Your task to perform on an android device: Open CNN.com Image 0: 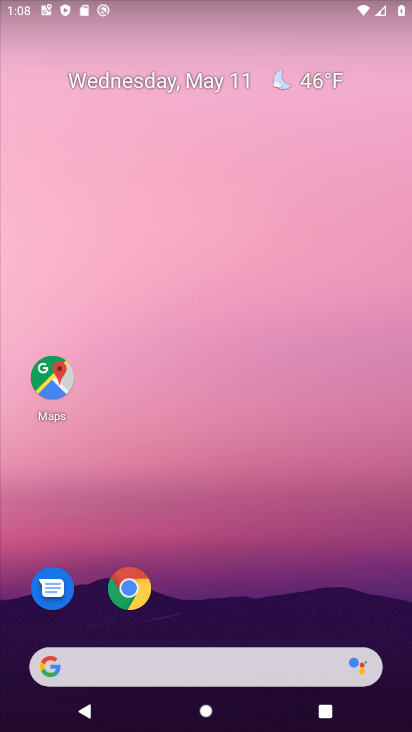
Step 0: click (142, 589)
Your task to perform on an android device: Open CNN.com Image 1: 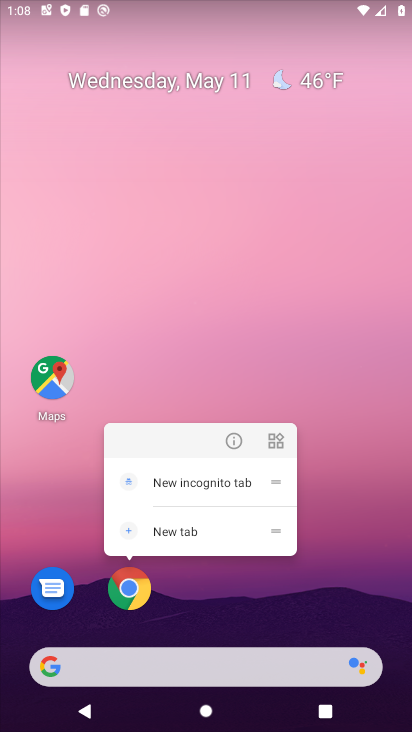
Step 1: click (126, 588)
Your task to perform on an android device: Open CNN.com Image 2: 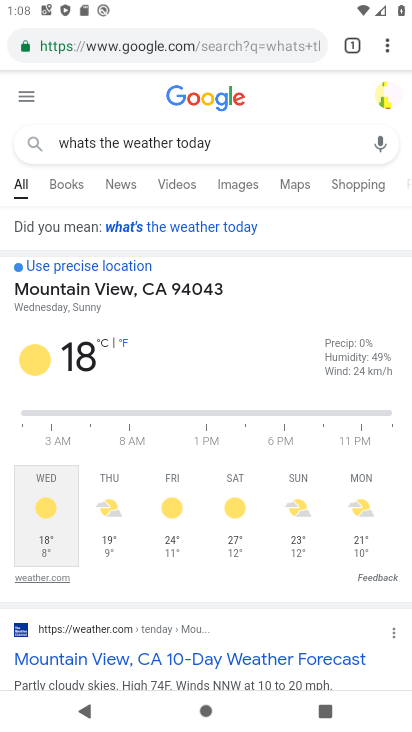
Step 2: click (173, 52)
Your task to perform on an android device: Open CNN.com Image 3: 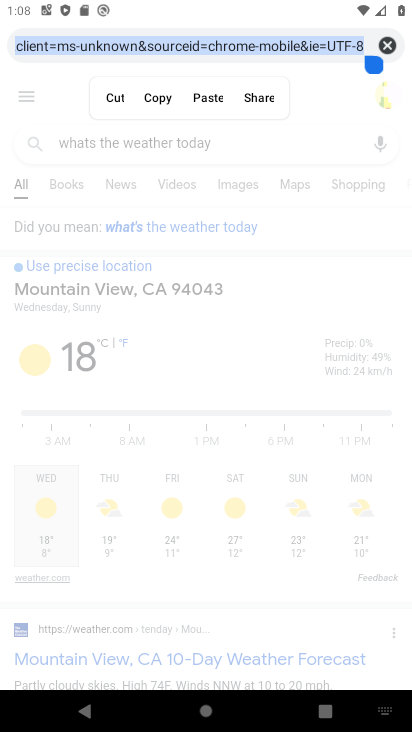
Step 3: type "CNN.com"
Your task to perform on an android device: Open CNN.com Image 4: 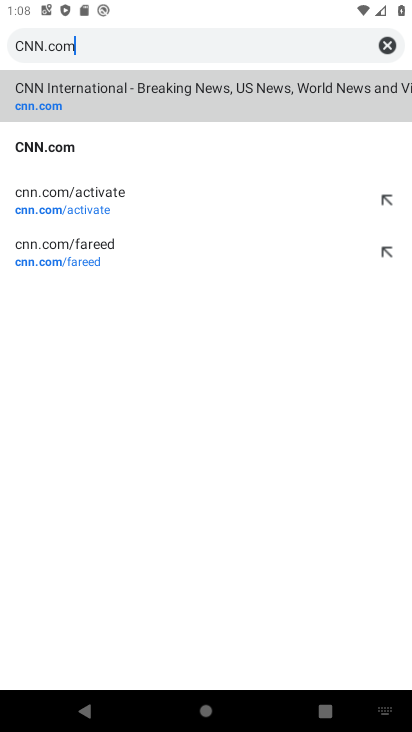
Step 4: click (131, 91)
Your task to perform on an android device: Open CNN.com Image 5: 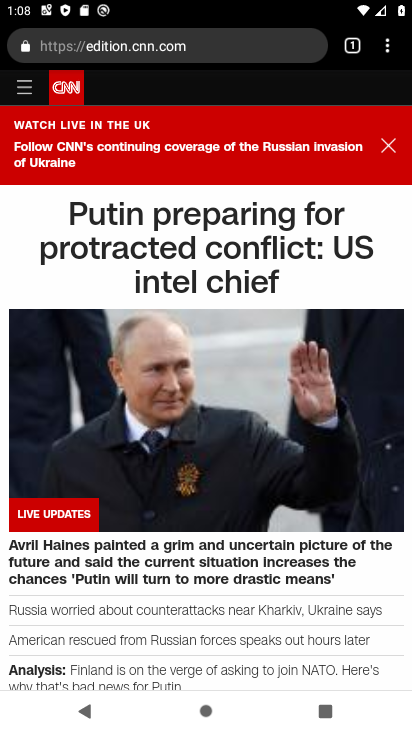
Step 5: task complete